Your task to perform on an android device: Open display settings Image 0: 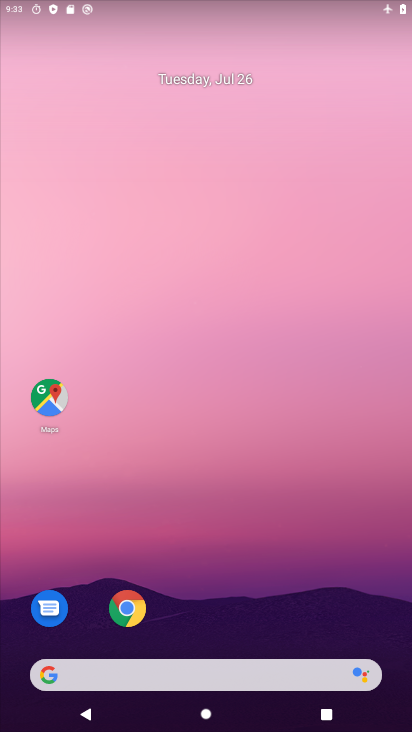
Step 0: drag from (226, 612) to (300, 14)
Your task to perform on an android device: Open display settings Image 1: 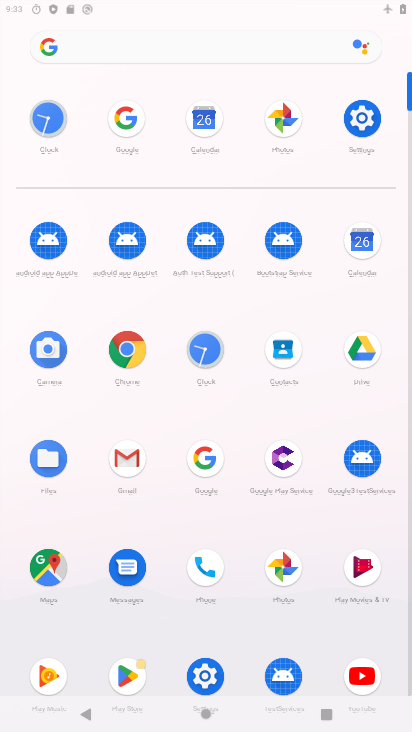
Step 1: click (358, 140)
Your task to perform on an android device: Open display settings Image 2: 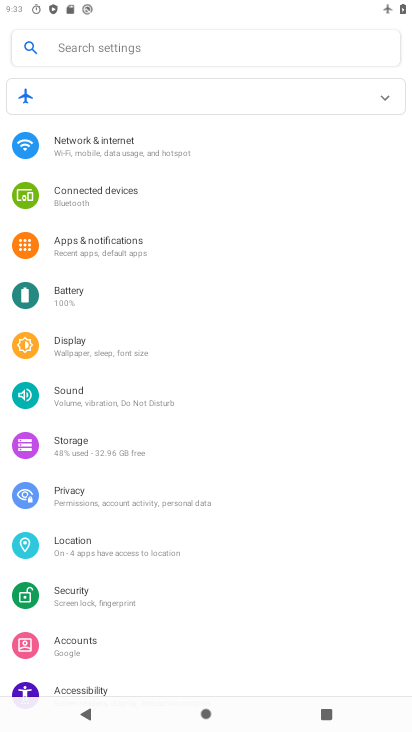
Step 2: click (110, 357)
Your task to perform on an android device: Open display settings Image 3: 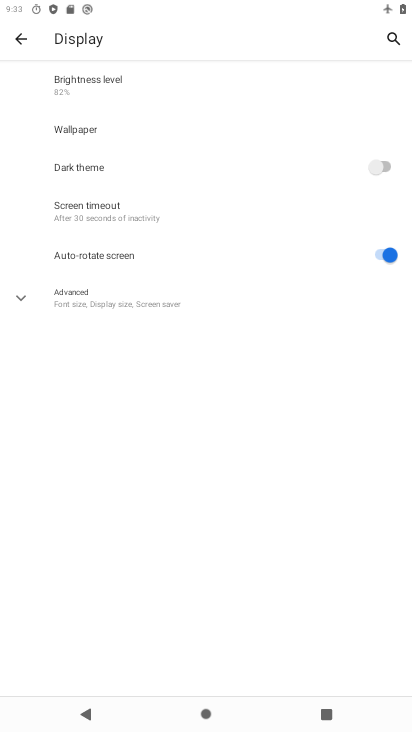
Step 3: task complete